Your task to perform on an android device: Search for "logitech g pro" on bestbuy.com, select the first entry, add it to the cart, then select checkout. Image 0: 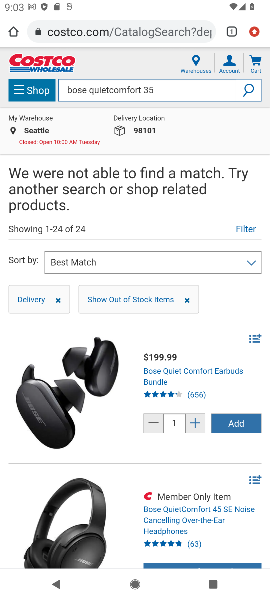
Step 0: click (98, 34)
Your task to perform on an android device: Search for "logitech g pro" on bestbuy.com, select the first entry, add it to the cart, then select checkout. Image 1: 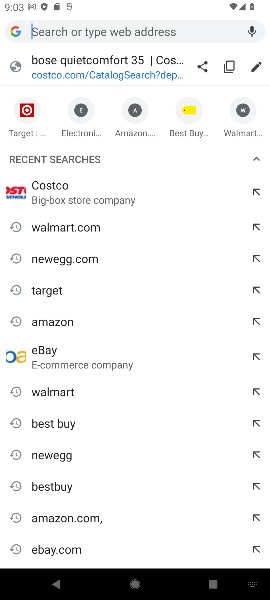
Step 1: type " bestbuy.com"
Your task to perform on an android device: Search for "logitech g pro" on bestbuy.com, select the first entry, add it to the cart, then select checkout. Image 2: 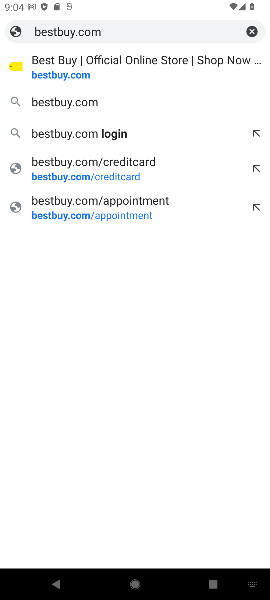
Step 2: click (56, 75)
Your task to perform on an android device: Search for "logitech g pro" on bestbuy.com, select the first entry, add it to the cart, then select checkout. Image 3: 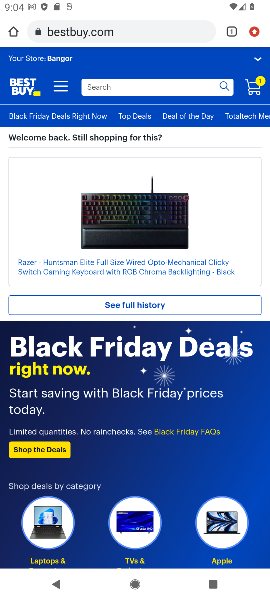
Step 3: click (113, 81)
Your task to perform on an android device: Search for "logitech g pro" on bestbuy.com, select the first entry, add it to the cart, then select checkout. Image 4: 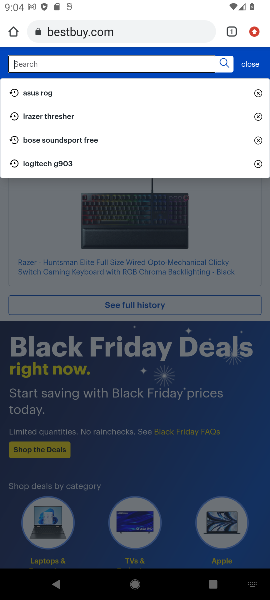
Step 4: type "logitech g pro"
Your task to perform on an android device: Search for "logitech g pro" on bestbuy.com, select the first entry, add it to the cart, then select checkout. Image 5: 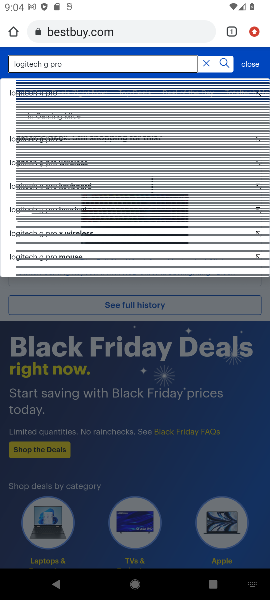
Step 5: click (26, 94)
Your task to perform on an android device: Search for "logitech g pro" on bestbuy.com, select the first entry, add it to the cart, then select checkout. Image 6: 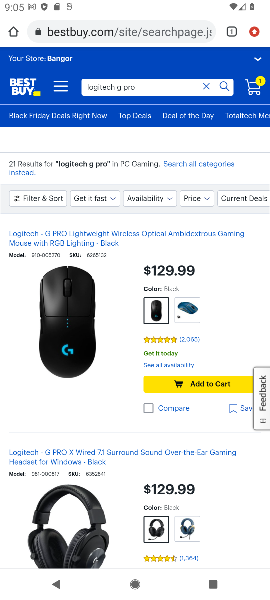
Step 6: click (197, 380)
Your task to perform on an android device: Search for "logitech g pro" on bestbuy.com, select the first entry, add it to the cart, then select checkout. Image 7: 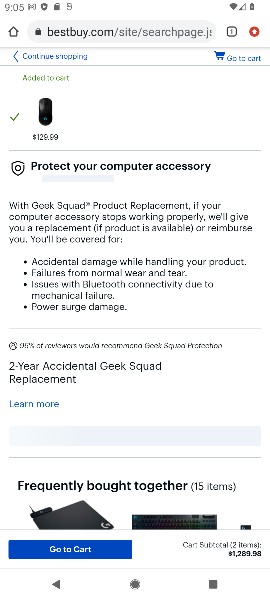
Step 7: click (247, 62)
Your task to perform on an android device: Search for "logitech g pro" on bestbuy.com, select the first entry, add it to the cart, then select checkout. Image 8: 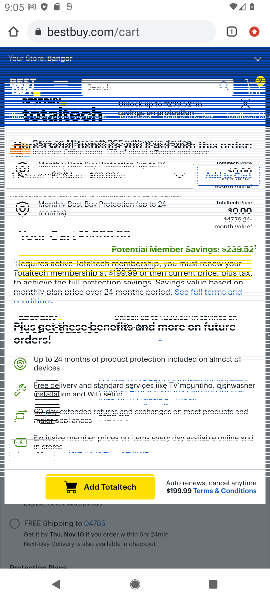
Step 8: click (243, 103)
Your task to perform on an android device: Search for "logitech g pro" on bestbuy.com, select the first entry, add it to the cart, then select checkout. Image 9: 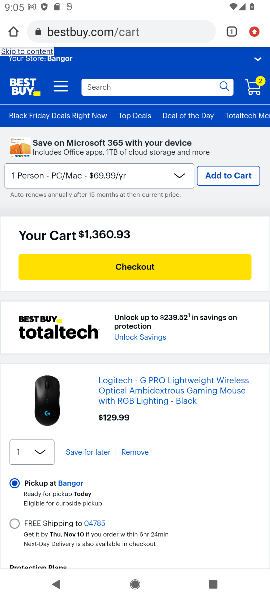
Step 9: click (154, 265)
Your task to perform on an android device: Search for "logitech g pro" on bestbuy.com, select the first entry, add it to the cart, then select checkout. Image 10: 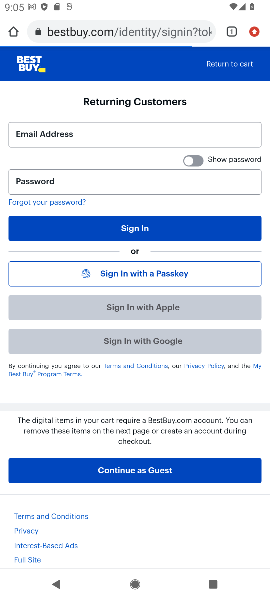
Step 10: task complete